Your task to perform on an android device: turn on bluetooth scan Image 0: 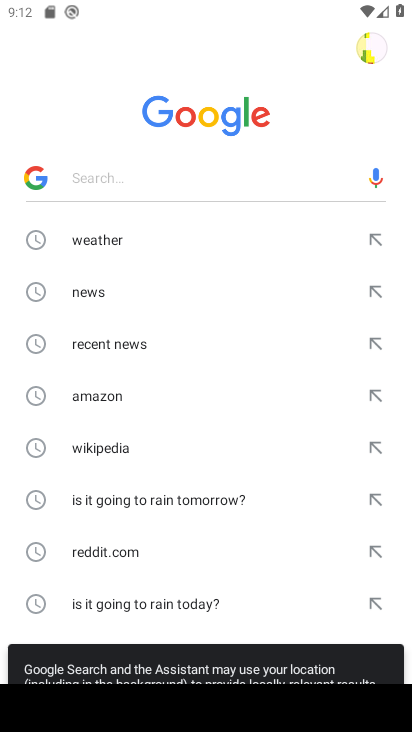
Step 0: press home button
Your task to perform on an android device: turn on bluetooth scan Image 1: 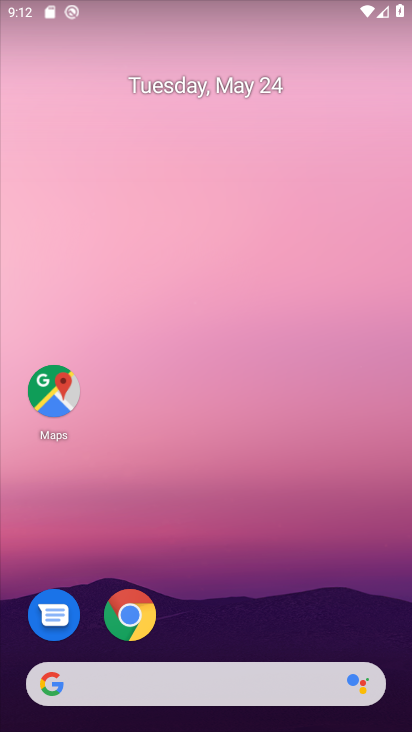
Step 1: drag from (360, 623) to (355, 172)
Your task to perform on an android device: turn on bluetooth scan Image 2: 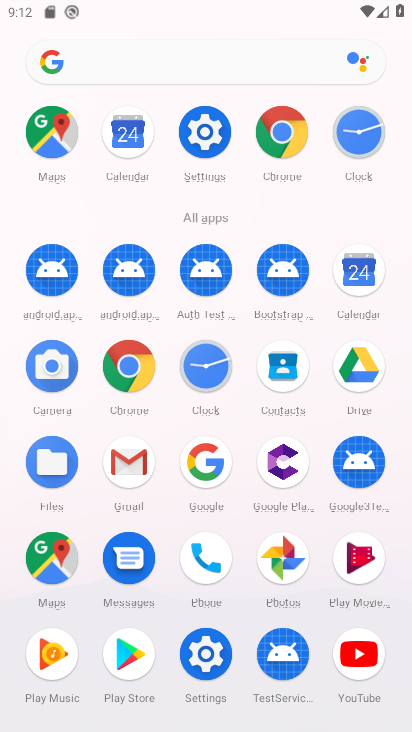
Step 2: click (216, 671)
Your task to perform on an android device: turn on bluetooth scan Image 3: 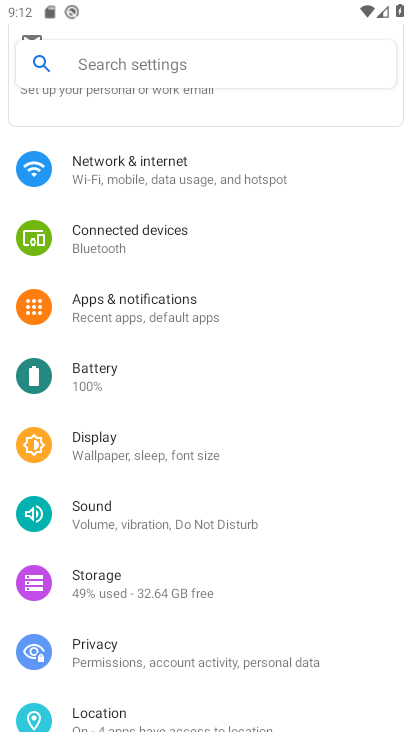
Step 3: drag from (352, 651) to (355, 519)
Your task to perform on an android device: turn on bluetooth scan Image 4: 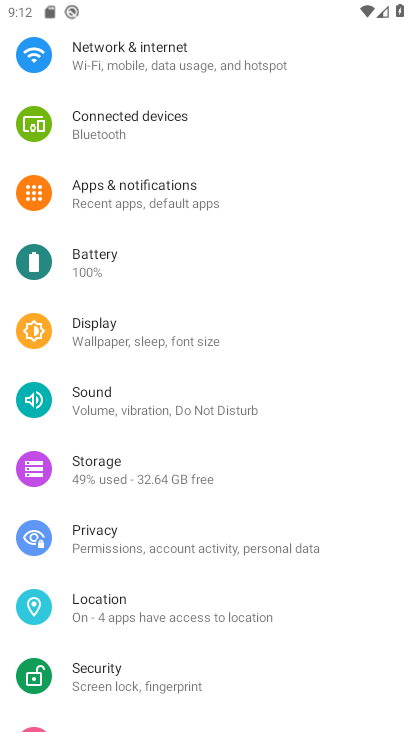
Step 4: drag from (357, 580) to (359, 482)
Your task to perform on an android device: turn on bluetooth scan Image 5: 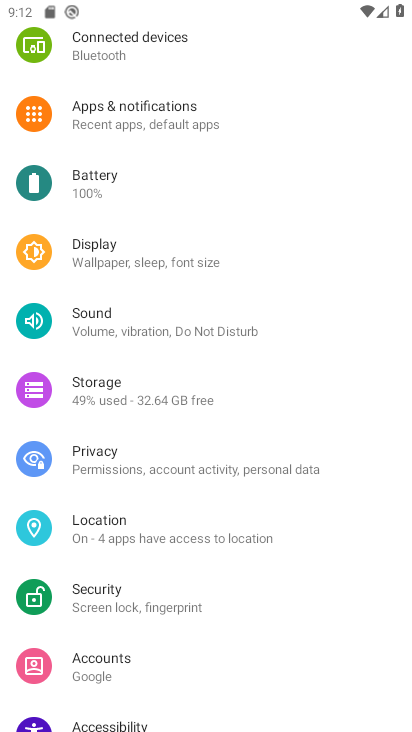
Step 5: drag from (351, 617) to (344, 512)
Your task to perform on an android device: turn on bluetooth scan Image 6: 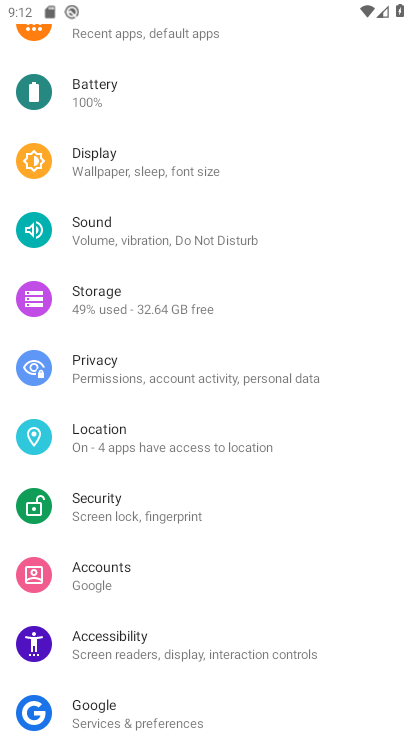
Step 6: drag from (346, 575) to (350, 440)
Your task to perform on an android device: turn on bluetooth scan Image 7: 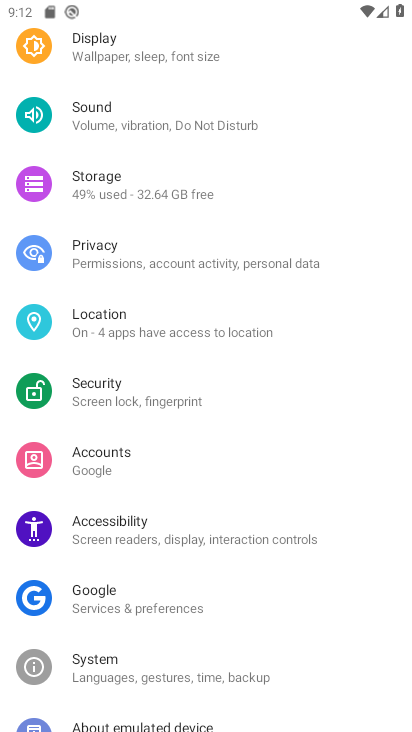
Step 7: drag from (339, 641) to (342, 517)
Your task to perform on an android device: turn on bluetooth scan Image 8: 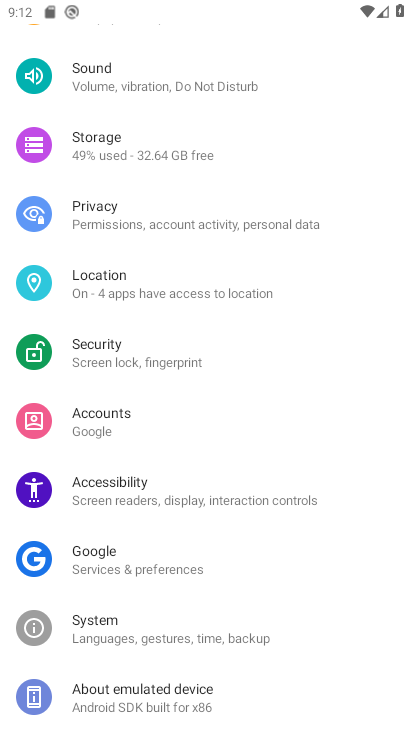
Step 8: drag from (343, 539) to (348, 440)
Your task to perform on an android device: turn on bluetooth scan Image 9: 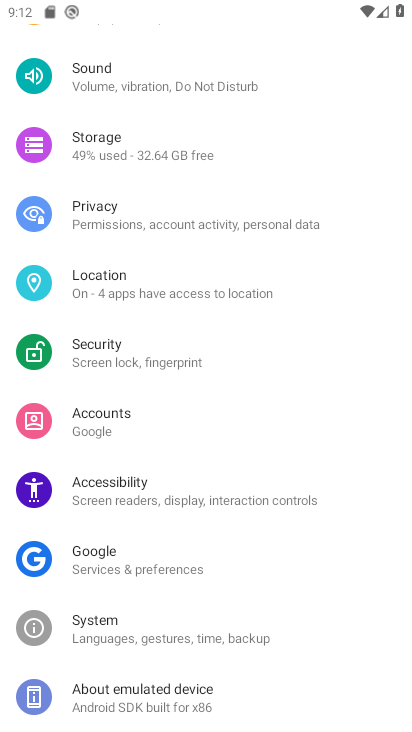
Step 9: drag from (341, 630) to (349, 515)
Your task to perform on an android device: turn on bluetooth scan Image 10: 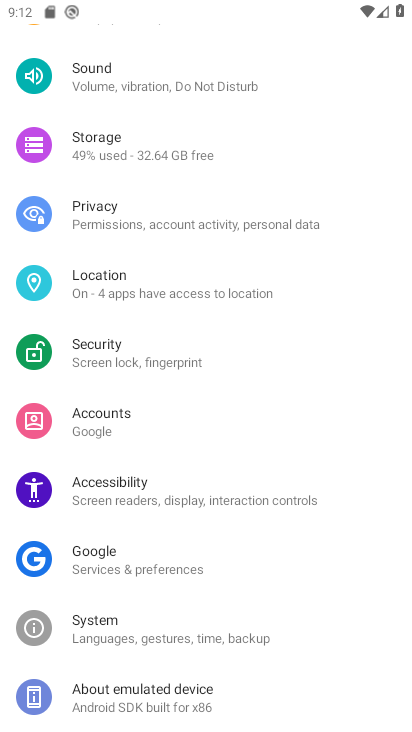
Step 10: drag from (344, 615) to (345, 473)
Your task to perform on an android device: turn on bluetooth scan Image 11: 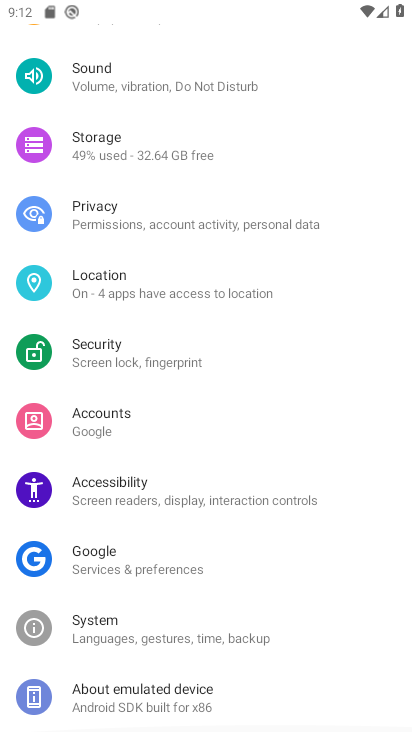
Step 11: drag from (348, 375) to (340, 493)
Your task to perform on an android device: turn on bluetooth scan Image 12: 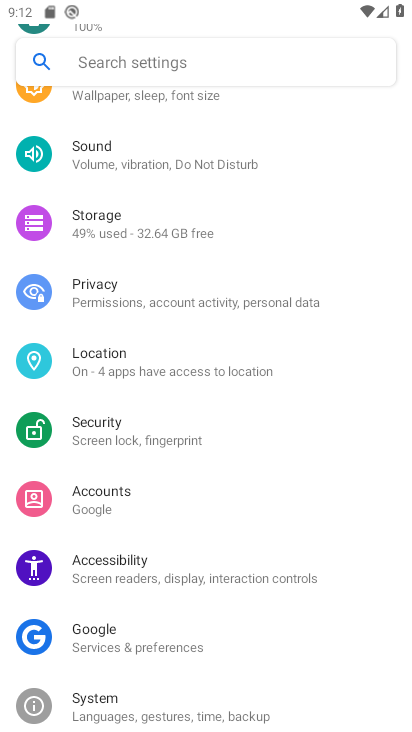
Step 12: drag from (345, 394) to (344, 515)
Your task to perform on an android device: turn on bluetooth scan Image 13: 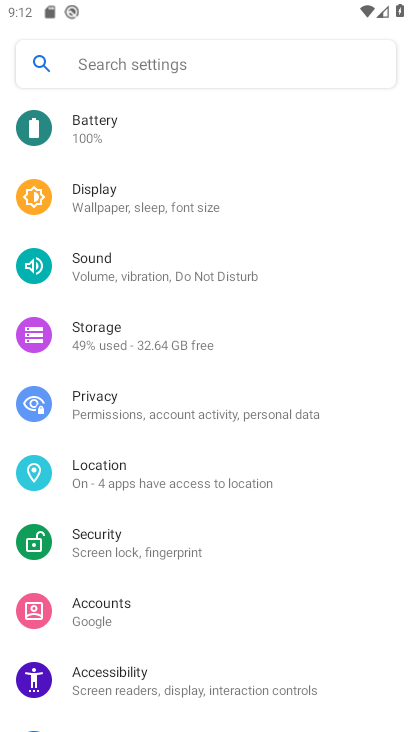
Step 13: drag from (347, 322) to (342, 445)
Your task to perform on an android device: turn on bluetooth scan Image 14: 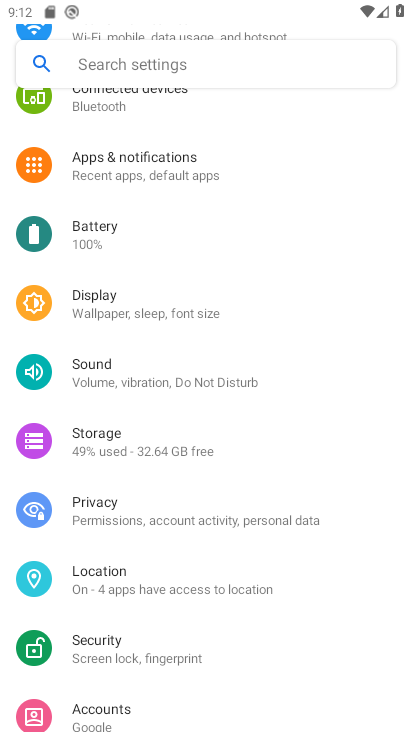
Step 14: click (235, 588)
Your task to perform on an android device: turn on bluetooth scan Image 15: 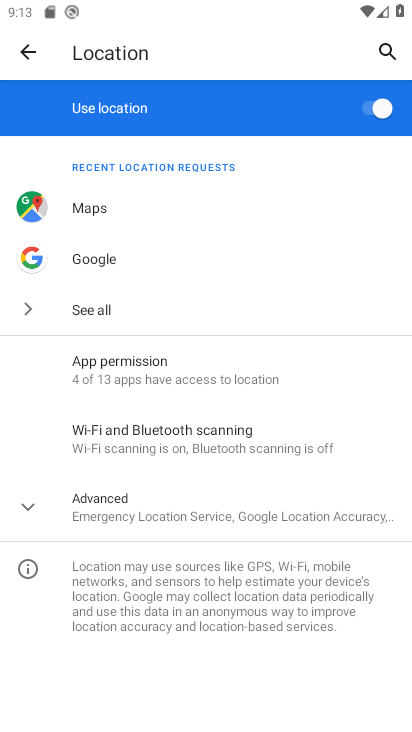
Step 15: click (252, 448)
Your task to perform on an android device: turn on bluetooth scan Image 16: 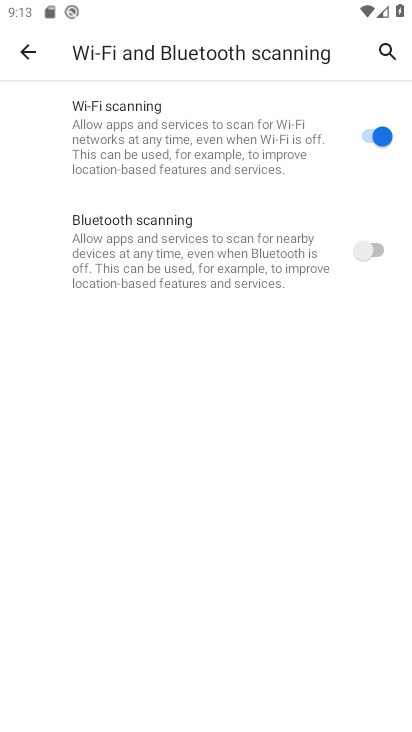
Step 16: click (372, 244)
Your task to perform on an android device: turn on bluetooth scan Image 17: 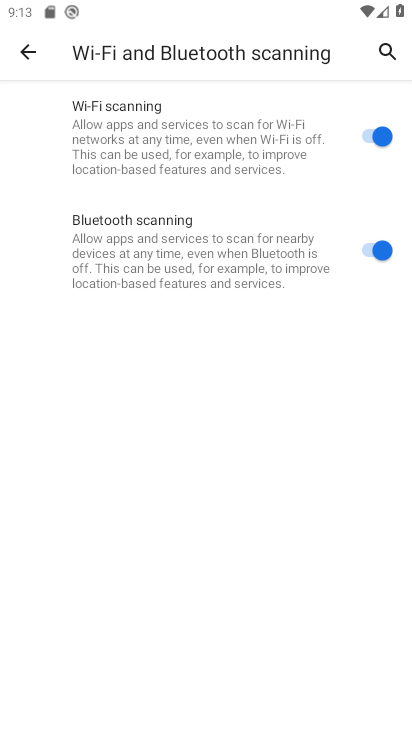
Step 17: task complete